Your task to perform on an android device: Go to Amazon Image 0: 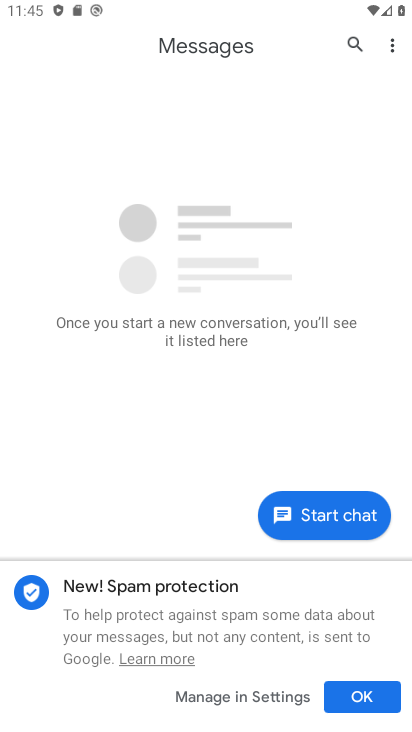
Step 0: press home button
Your task to perform on an android device: Go to Amazon Image 1: 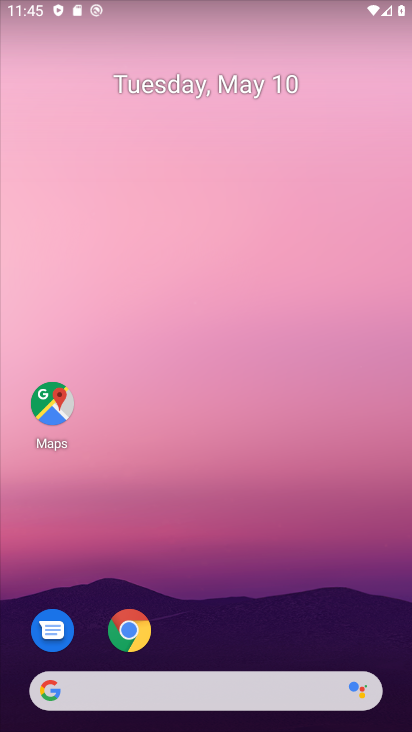
Step 1: drag from (205, 659) to (142, 25)
Your task to perform on an android device: Go to Amazon Image 2: 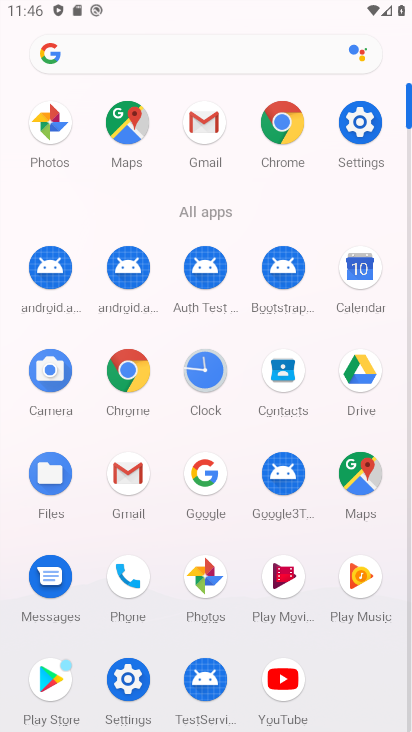
Step 2: click (290, 122)
Your task to perform on an android device: Go to Amazon Image 3: 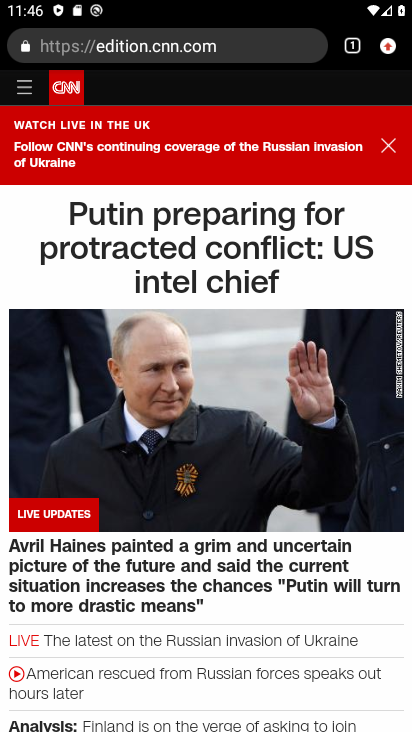
Step 3: click (354, 46)
Your task to perform on an android device: Go to Amazon Image 4: 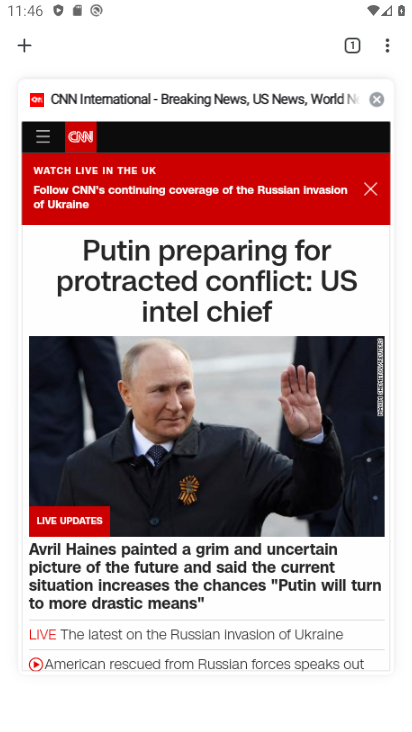
Step 4: click (33, 49)
Your task to perform on an android device: Go to Amazon Image 5: 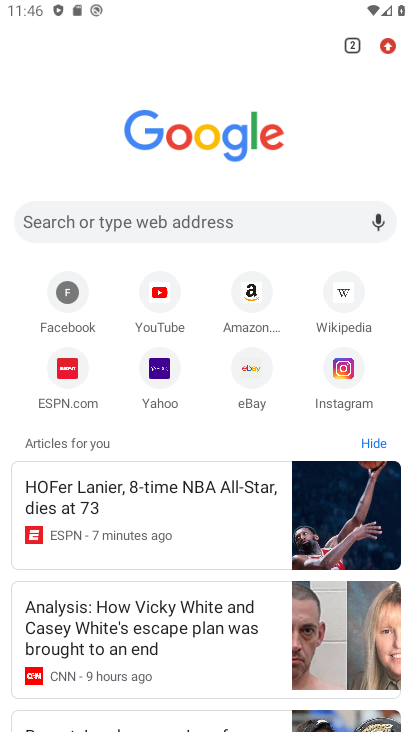
Step 5: click (257, 291)
Your task to perform on an android device: Go to Amazon Image 6: 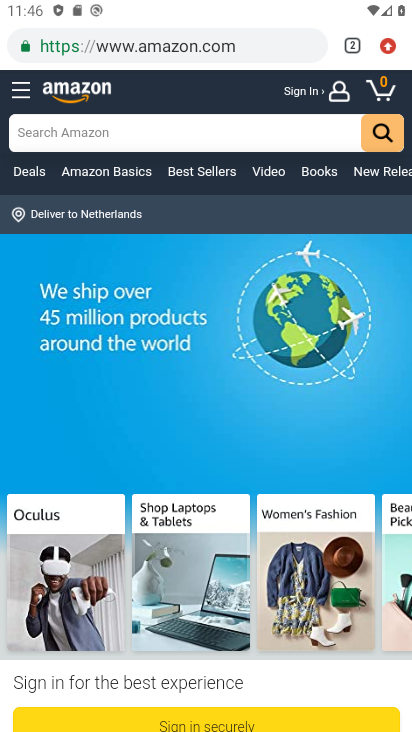
Step 6: task complete